Your task to perform on an android device: Open the calendar app, open the side menu, and click the "Day" option Image 0: 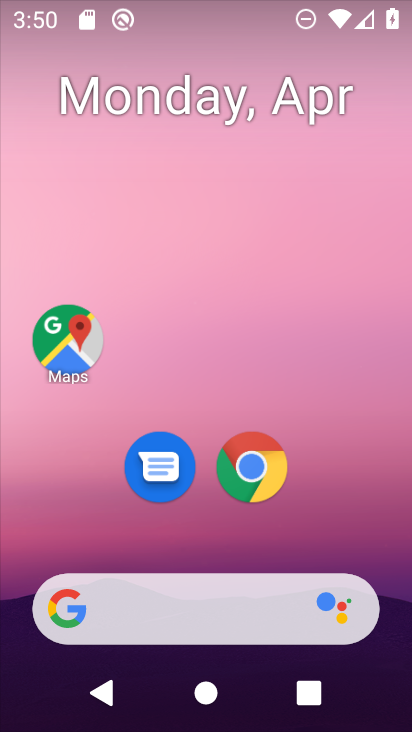
Step 0: drag from (203, 385) to (295, 51)
Your task to perform on an android device: Open the calendar app, open the side menu, and click the "Day" option Image 1: 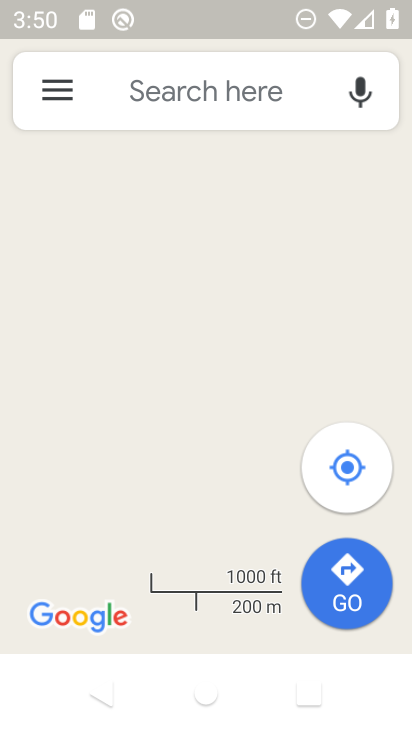
Step 1: press back button
Your task to perform on an android device: Open the calendar app, open the side menu, and click the "Day" option Image 2: 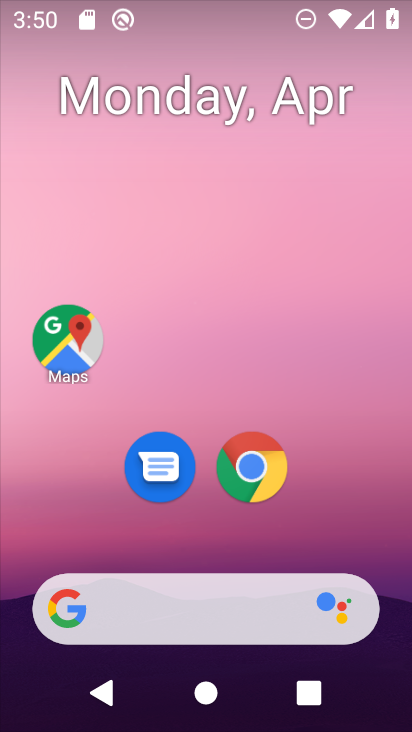
Step 2: drag from (236, 572) to (296, 43)
Your task to perform on an android device: Open the calendar app, open the side menu, and click the "Day" option Image 3: 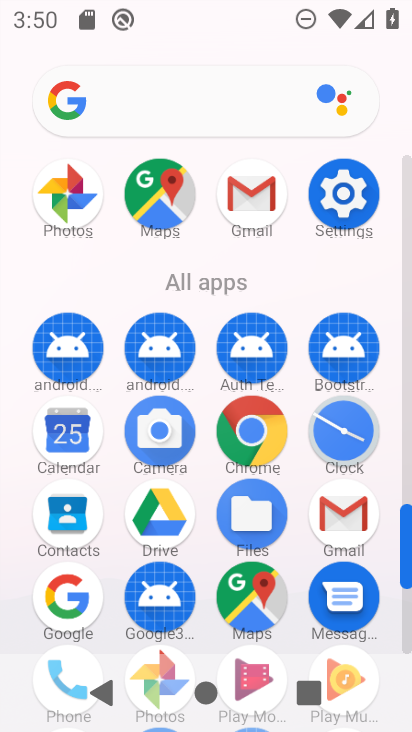
Step 3: click (64, 445)
Your task to perform on an android device: Open the calendar app, open the side menu, and click the "Day" option Image 4: 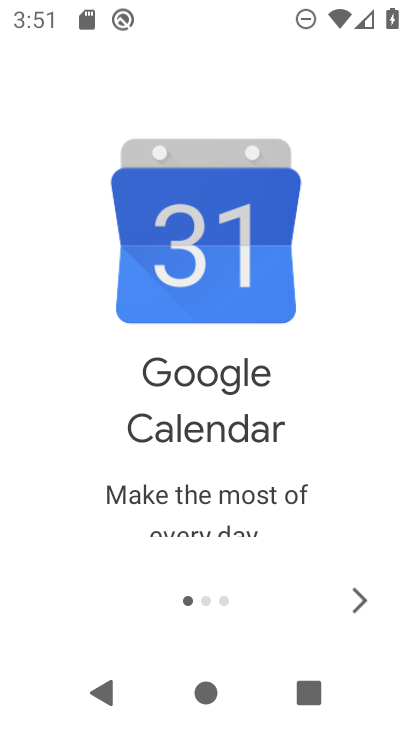
Step 4: click (356, 602)
Your task to perform on an android device: Open the calendar app, open the side menu, and click the "Day" option Image 5: 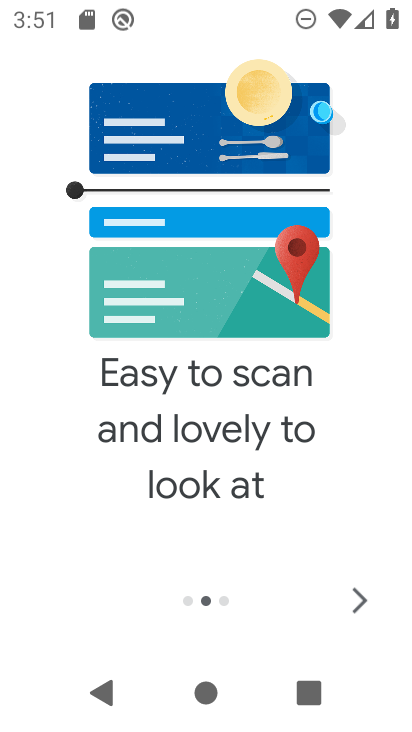
Step 5: click (357, 596)
Your task to perform on an android device: Open the calendar app, open the side menu, and click the "Day" option Image 6: 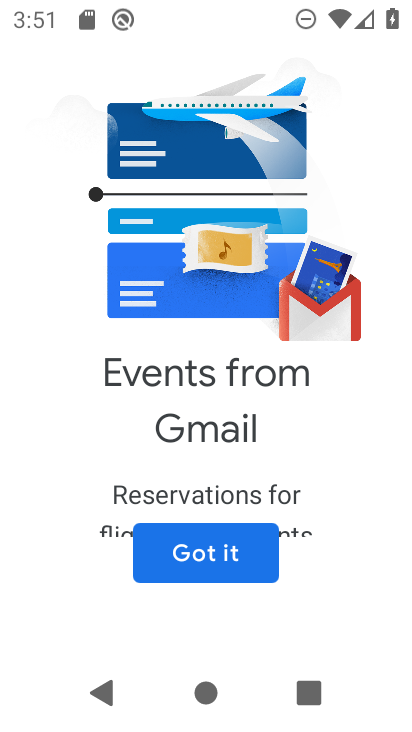
Step 6: click (239, 553)
Your task to perform on an android device: Open the calendar app, open the side menu, and click the "Day" option Image 7: 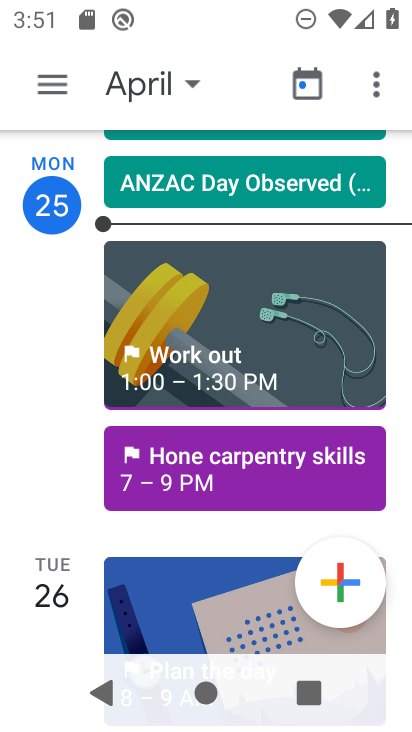
Step 7: click (45, 86)
Your task to perform on an android device: Open the calendar app, open the side menu, and click the "Day" option Image 8: 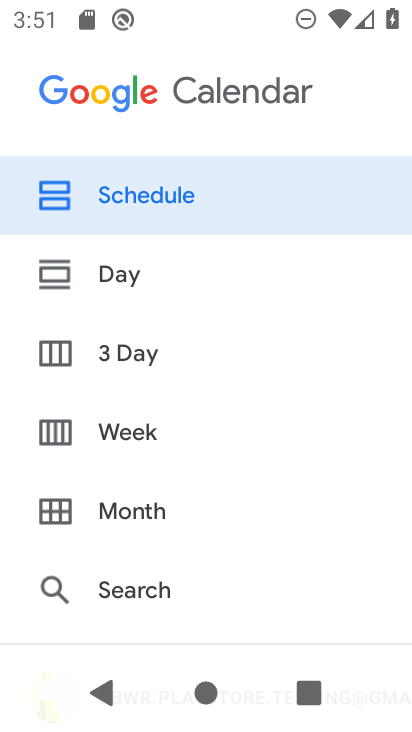
Step 8: click (151, 281)
Your task to perform on an android device: Open the calendar app, open the side menu, and click the "Day" option Image 9: 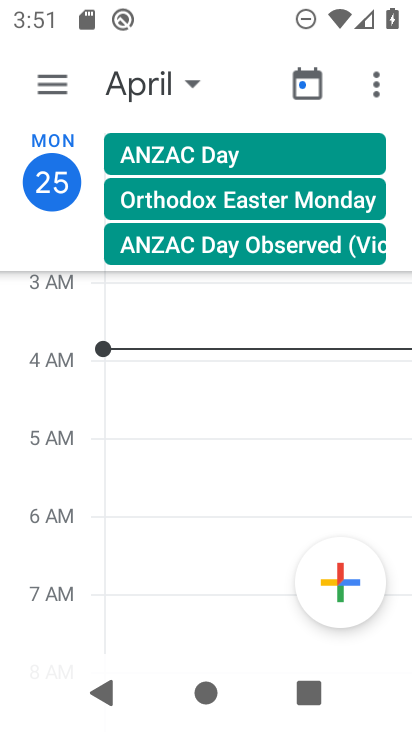
Step 9: task complete